Your task to perform on an android device: turn on improve location accuracy Image 0: 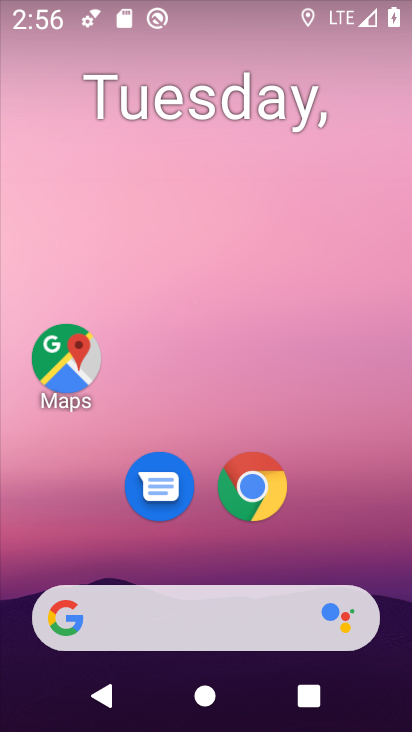
Step 0: drag from (366, 530) to (370, 119)
Your task to perform on an android device: turn on improve location accuracy Image 1: 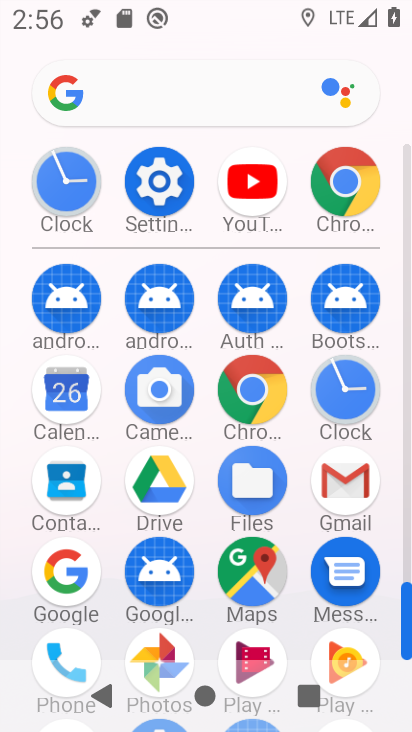
Step 1: click (157, 193)
Your task to perform on an android device: turn on improve location accuracy Image 2: 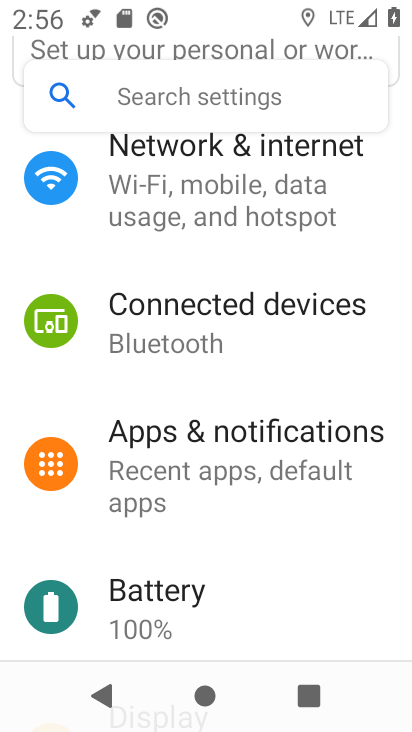
Step 2: drag from (361, 199) to (360, 281)
Your task to perform on an android device: turn on improve location accuracy Image 3: 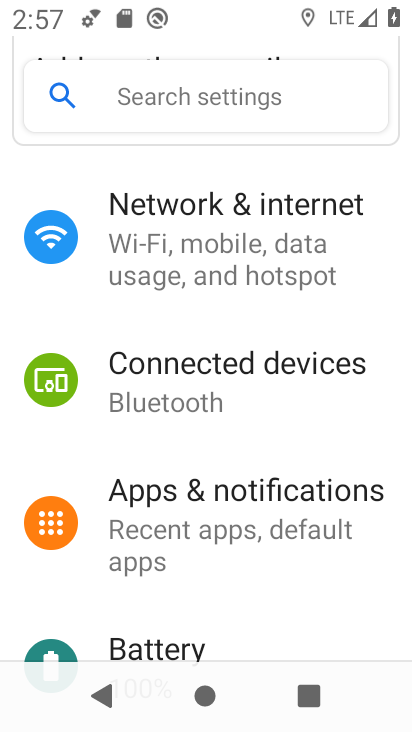
Step 3: drag from (384, 163) to (374, 479)
Your task to perform on an android device: turn on improve location accuracy Image 4: 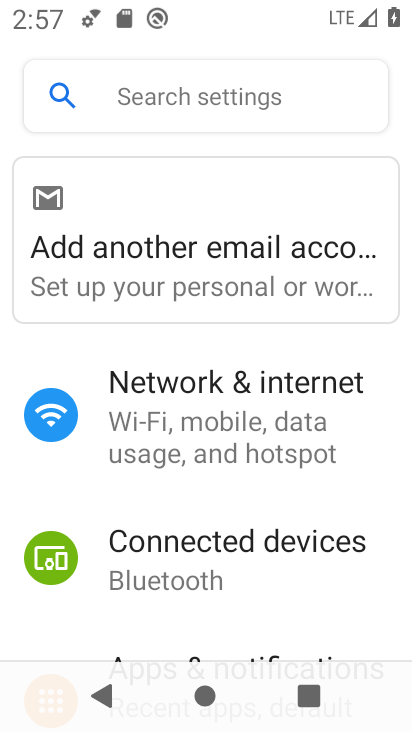
Step 4: drag from (374, 486) to (373, 414)
Your task to perform on an android device: turn on improve location accuracy Image 5: 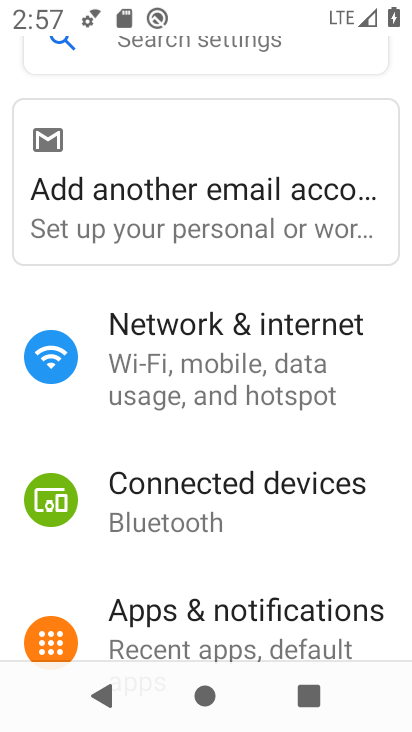
Step 5: drag from (371, 488) to (367, 394)
Your task to perform on an android device: turn on improve location accuracy Image 6: 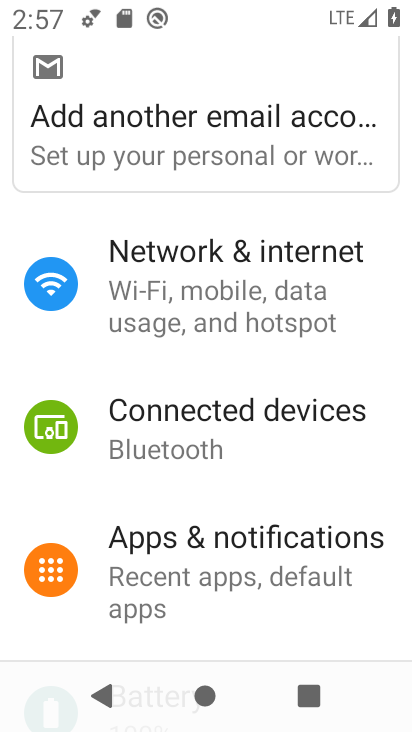
Step 6: drag from (354, 480) to (353, 397)
Your task to perform on an android device: turn on improve location accuracy Image 7: 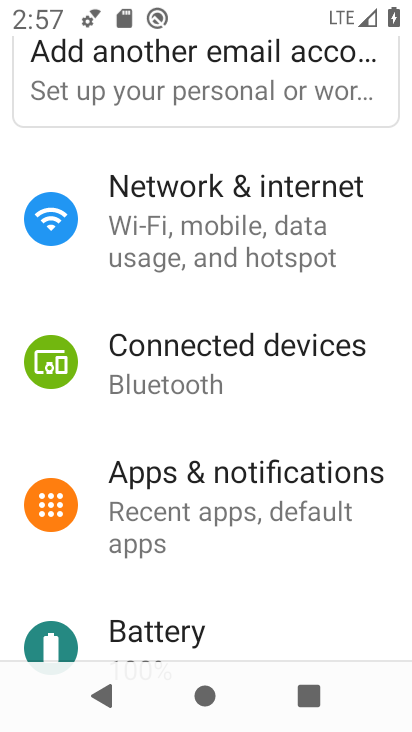
Step 7: drag from (342, 485) to (345, 396)
Your task to perform on an android device: turn on improve location accuracy Image 8: 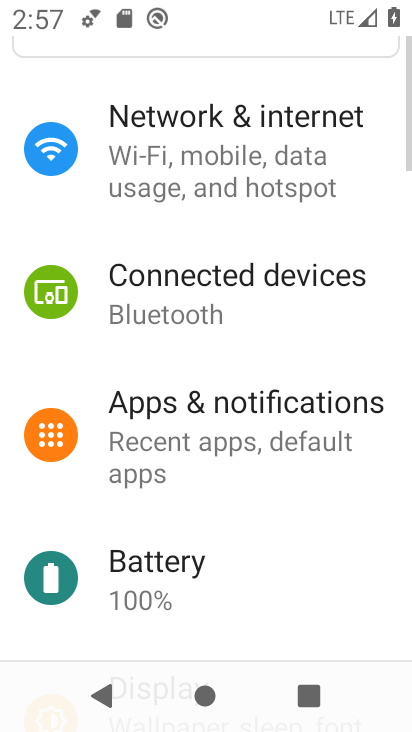
Step 8: drag from (346, 509) to (350, 402)
Your task to perform on an android device: turn on improve location accuracy Image 9: 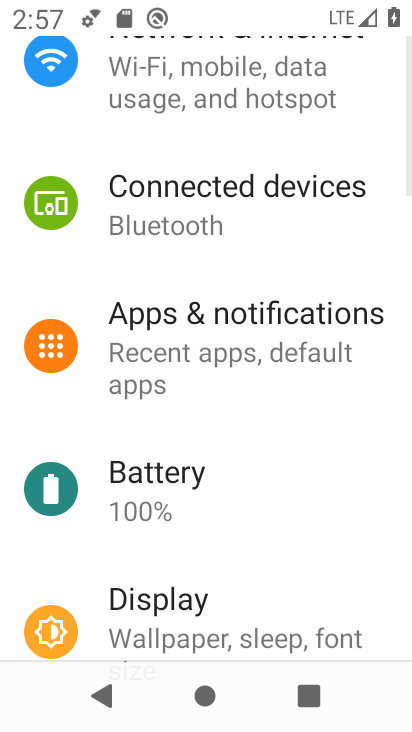
Step 9: drag from (345, 521) to (344, 368)
Your task to perform on an android device: turn on improve location accuracy Image 10: 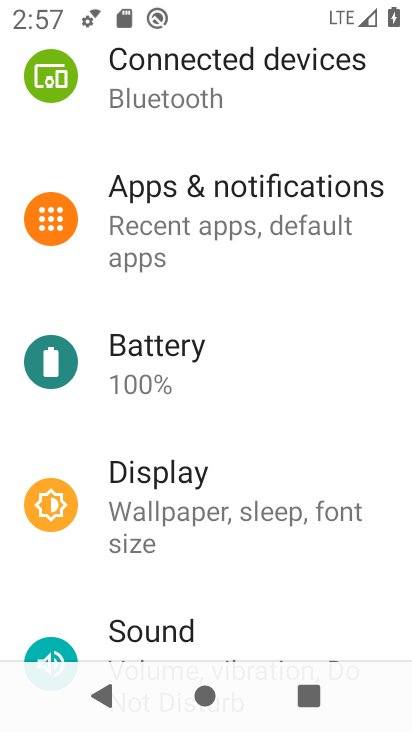
Step 10: drag from (345, 511) to (344, 408)
Your task to perform on an android device: turn on improve location accuracy Image 11: 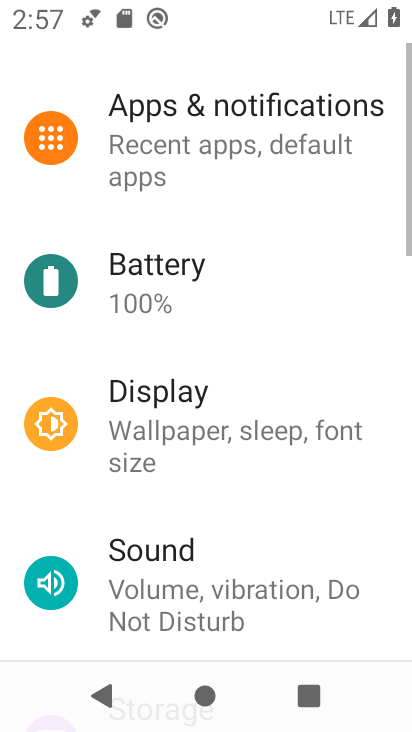
Step 11: drag from (335, 492) to (325, 380)
Your task to perform on an android device: turn on improve location accuracy Image 12: 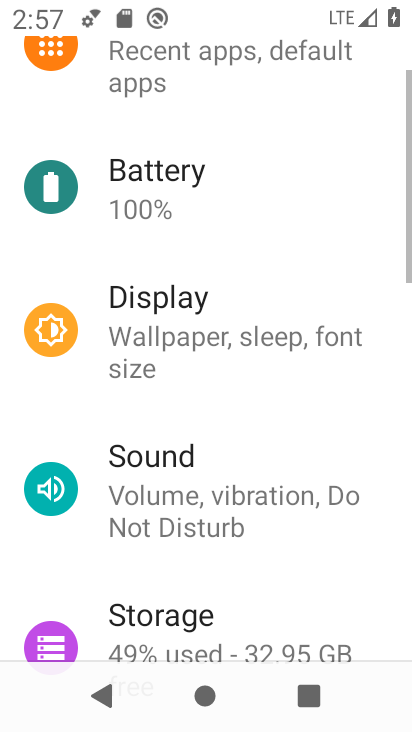
Step 12: drag from (327, 515) to (325, 388)
Your task to perform on an android device: turn on improve location accuracy Image 13: 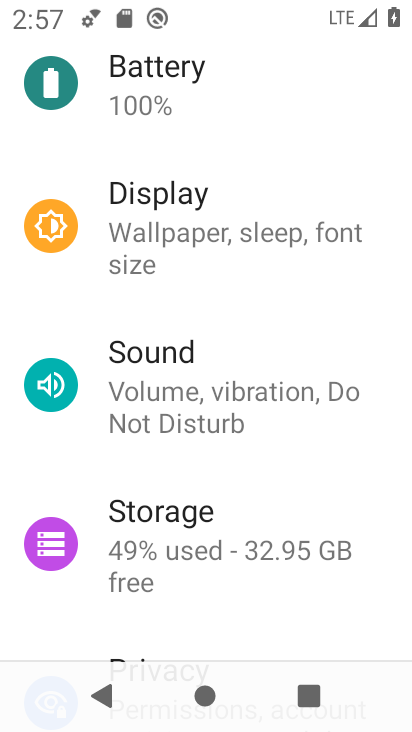
Step 13: drag from (331, 511) to (334, 358)
Your task to perform on an android device: turn on improve location accuracy Image 14: 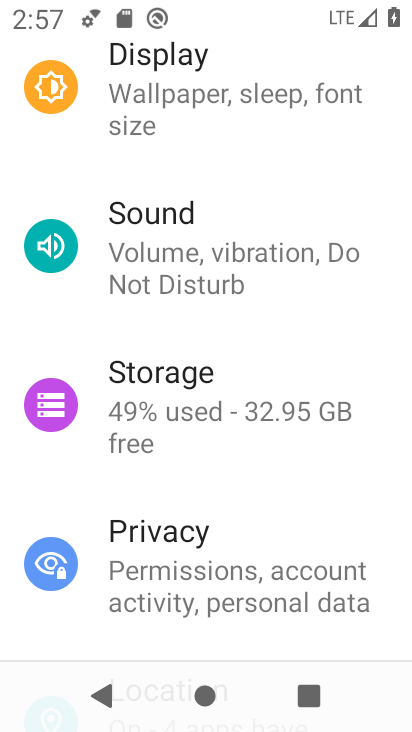
Step 14: drag from (326, 497) to (325, 357)
Your task to perform on an android device: turn on improve location accuracy Image 15: 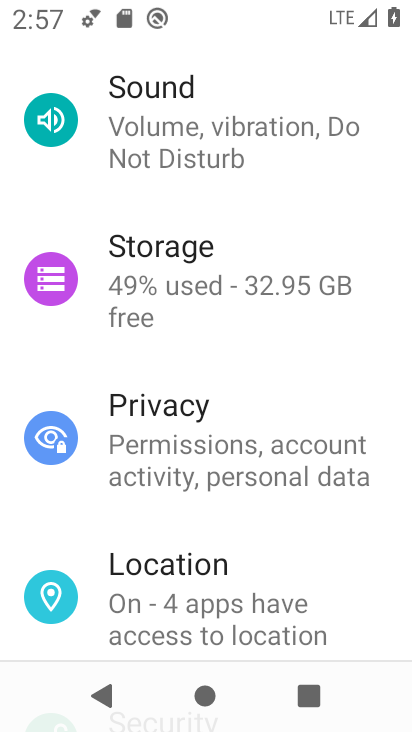
Step 15: drag from (328, 551) to (329, 424)
Your task to perform on an android device: turn on improve location accuracy Image 16: 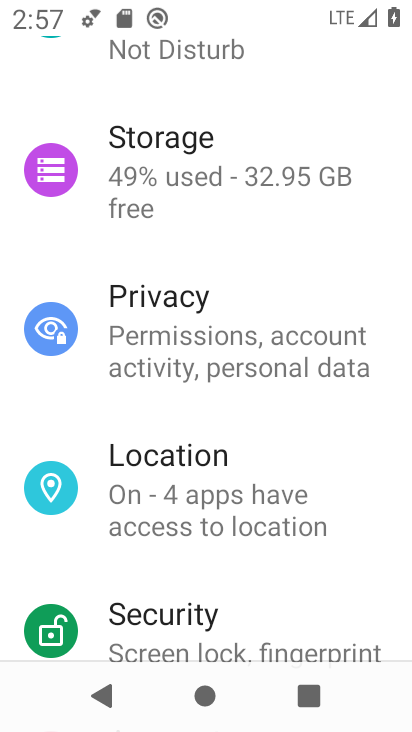
Step 16: drag from (336, 557) to (337, 469)
Your task to perform on an android device: turn on improve location accuracy Image 17: 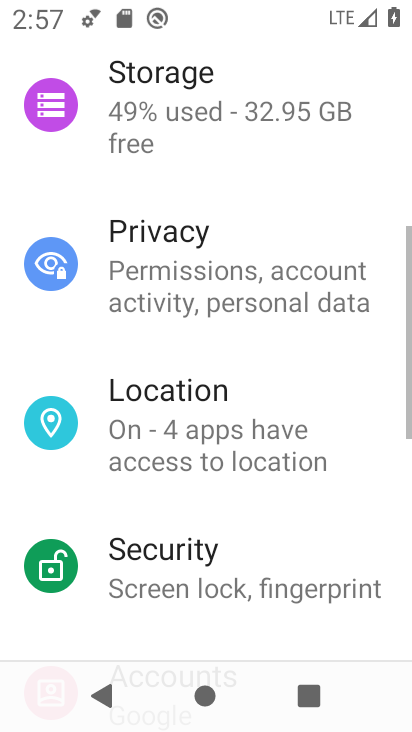
Step 17: click (298, 448)
Your task to perform on an android device: turn on improve location accuracy Image 18: 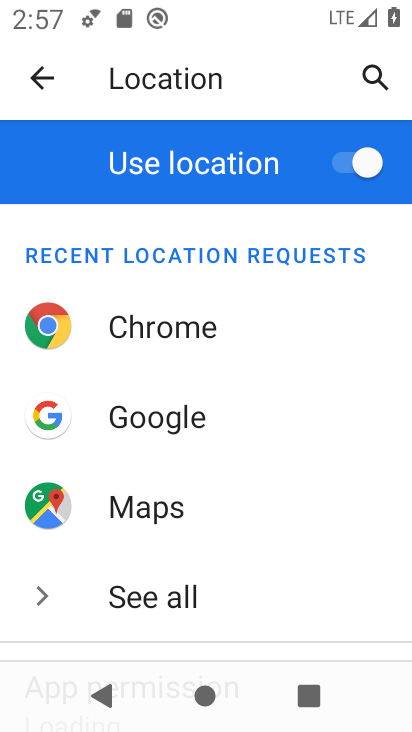
Step 18: drag from (295, 544) to (293, 414)
Your task to perform on an android device: turn on improve location accuracy Image 19: 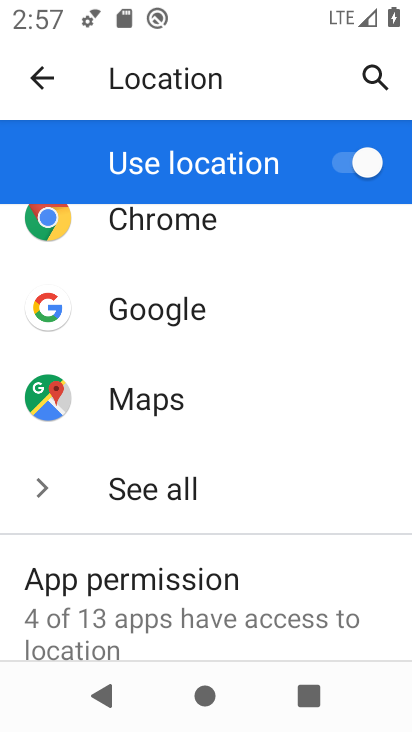
Step 19: drag from (291, 572) to (294, 435)
Your task to perform on an android device: turn on improve location accuracy Image 20: 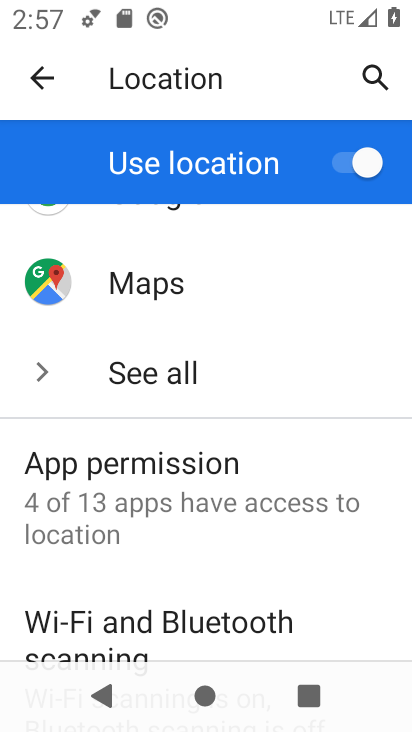
Step 20: drag from (294, 601) to (298, 448)
Your task to perform on an android device: turn on improve location accuracy Image 21: 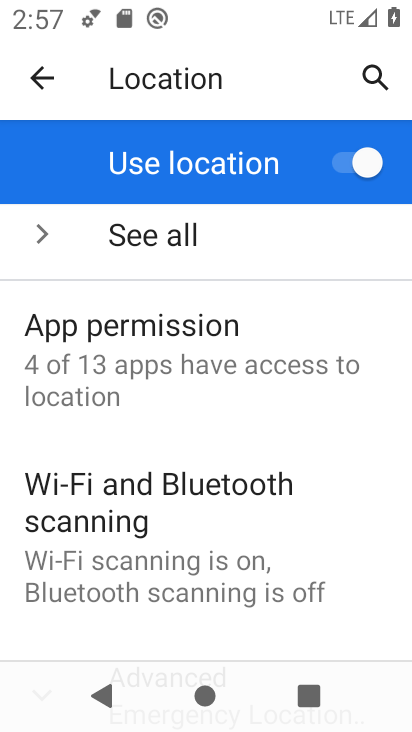
Step 21: drag from (269, 626) to (254, 424)
Your task to perform on an android device: turn on improve location accuracy Image 22: 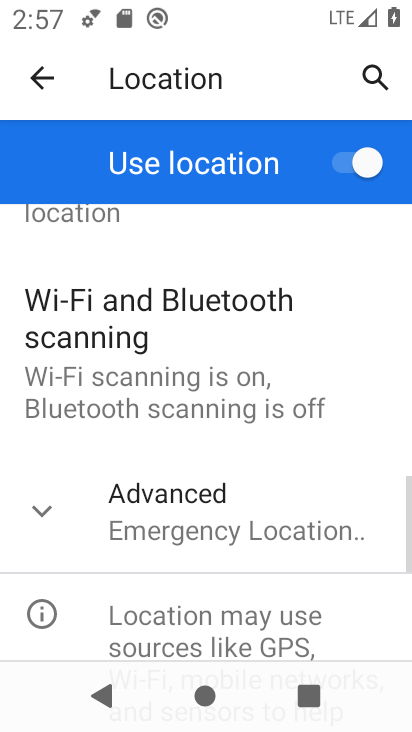
Step 22: click (249, 521)
Your task to perform on an android device: turn on improve location accuracy Image 23: 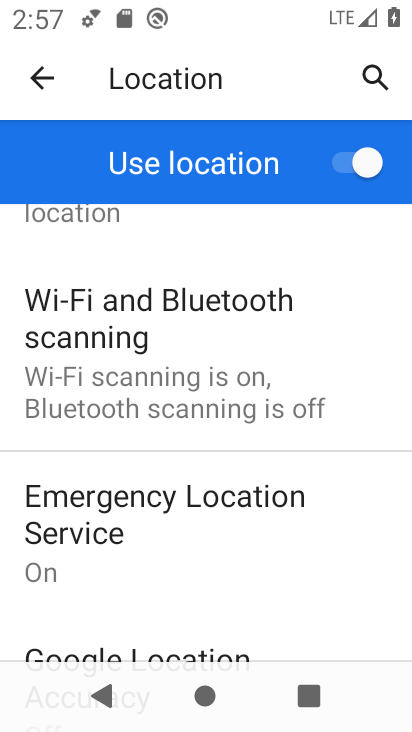
Step 23: drag from (270, 570) to (273, 484)
Your task to perform on an android device: turn on improve location accuracy Image 24: 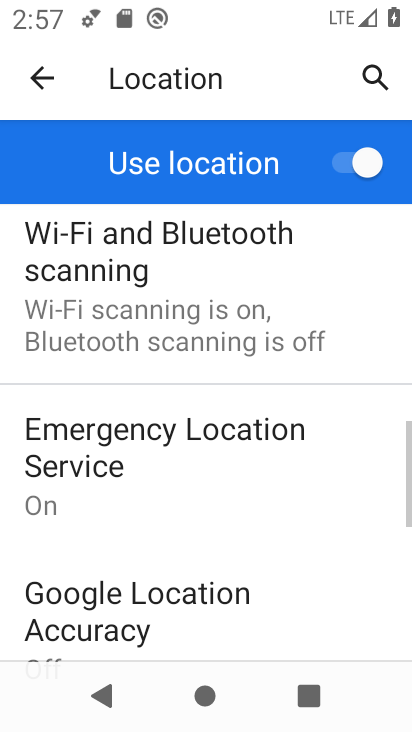
Step 24: drag from (273, 562) to (273, 414)
Your task to perform on an android device: turn on improve location accuracy Image 25: 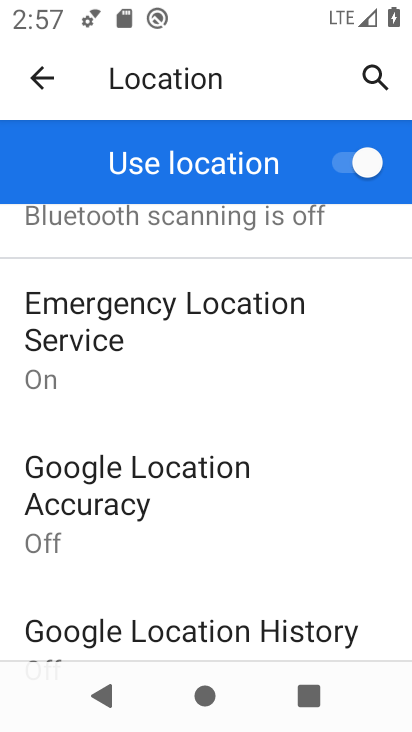
Step 25: click (249, 467)
Your task to perform on an android device: turn on improve location accuracy Image 26: 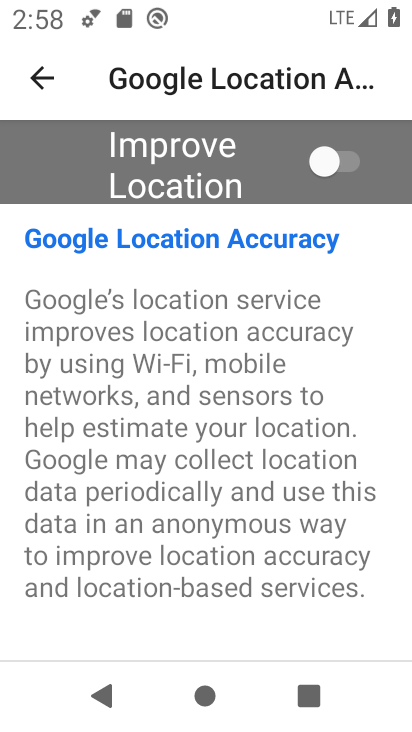
Step 26: click (313, 153)
Your task to perform on an android device: turn on improve location accuracy Image 27: 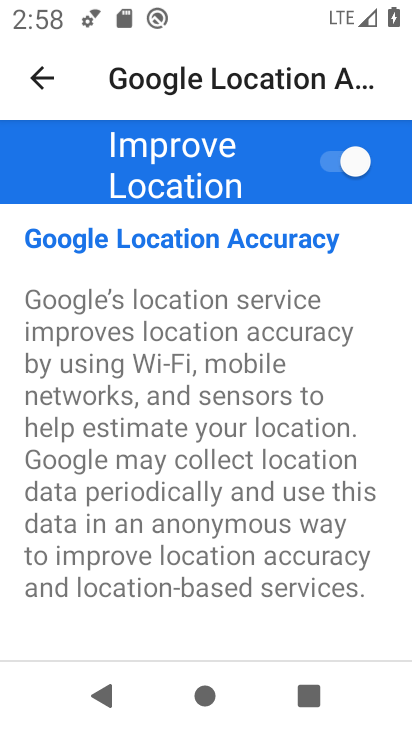
Step 27: task complete